Your task to perform on an android device: What's the weather today? Image 0: 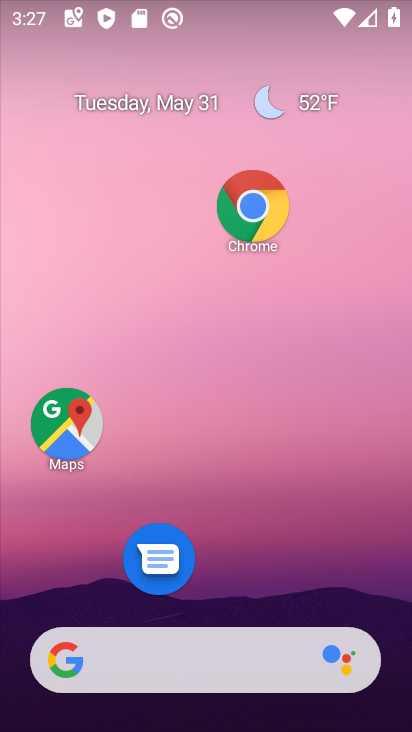
Step 0: drag from (222, 594) to (191, 150)
Your task to perform on an android device: What's the weather today? Image 1: 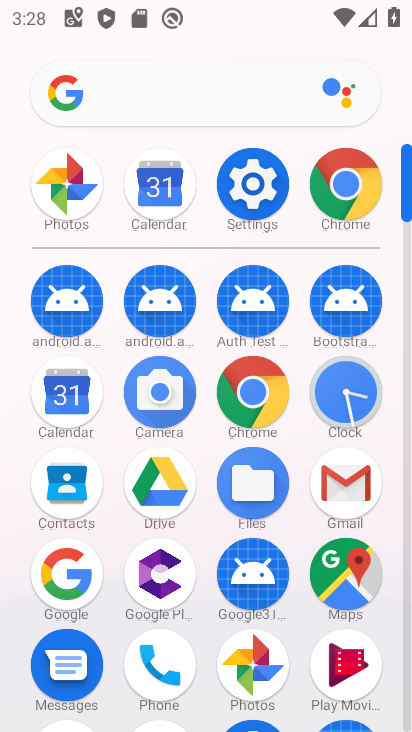
Step 1: click (70, 568)
Your task to perform on an android device: What's the weather today? Image 2: 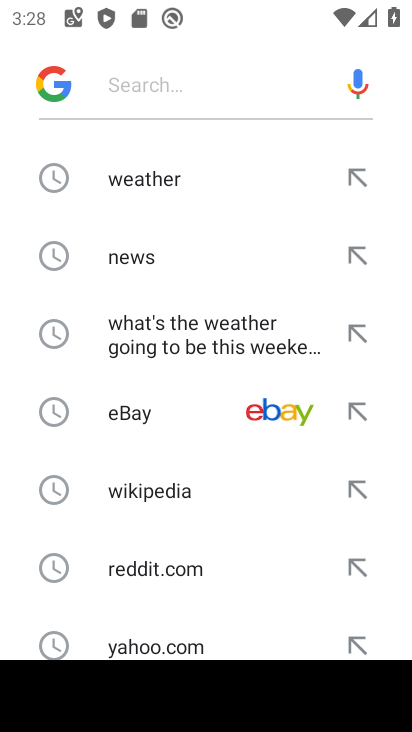
Step 2: click (140, 179)
Your task to perform on an android device: What's the weather today? Image 3: 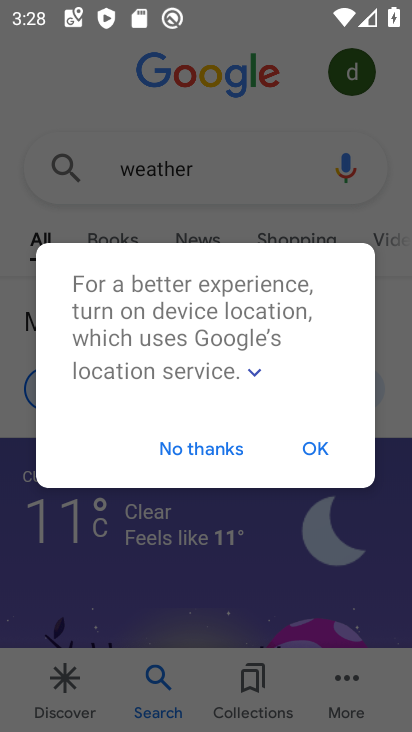
Step 3: click (185, 458)
Your task to perform on an android device: What's the weather today? Image 4: 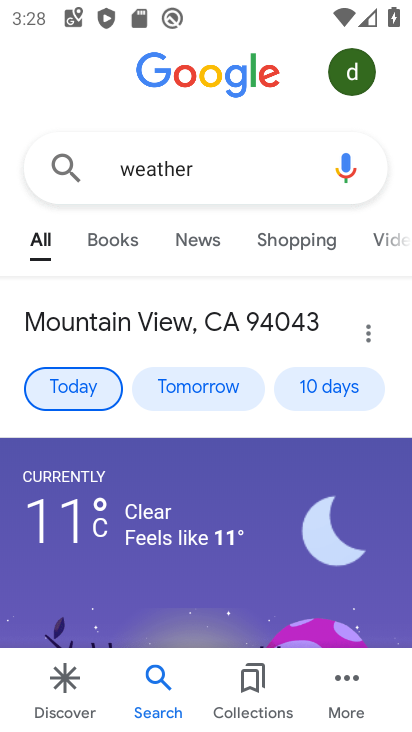
Step 4: task complete